Your task to perform on an android device: set default search engine in the chrome app Image 0: 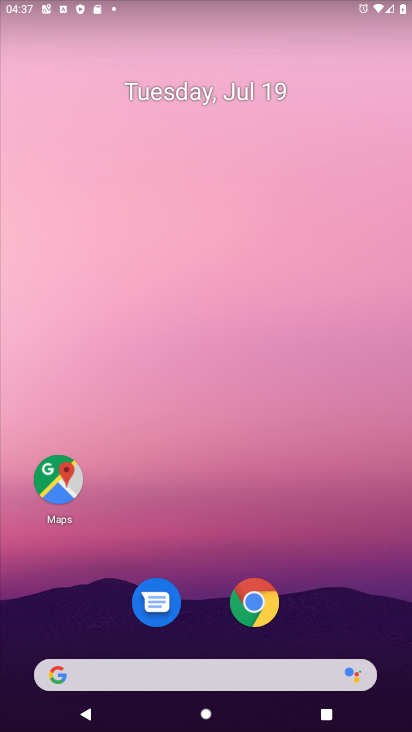
Step 0: click (243, 606)
Your task to perform on an android device: set default search engine in the chrome app Image 1: 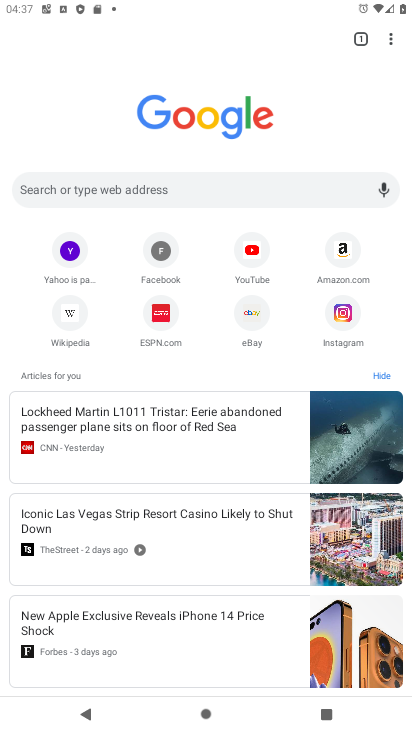
Step 1: click (396, 31)
Your task to perform on an android device: set default search engine in the chrome app Image 2: 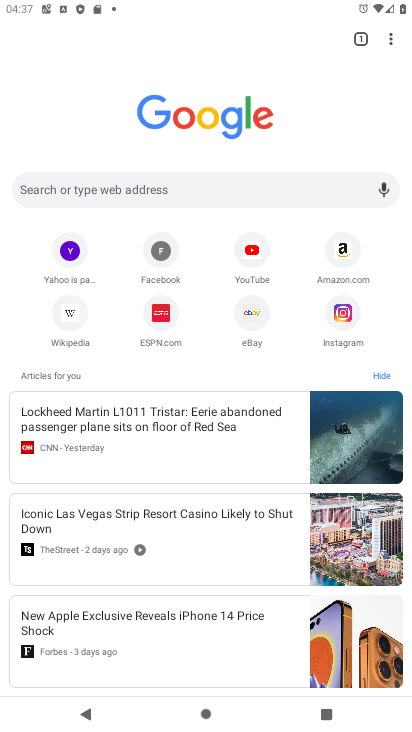
Step 2: click (396, 44)
Your task to perform on an android device: set default search engine in the chrome app Image 3: 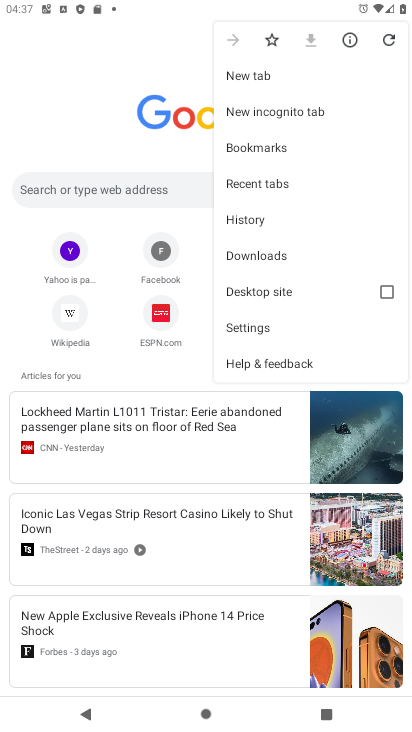
Step 3: click (253, 323)
Your task to perform on an android device: set default search engine in the chrome app Image 4: 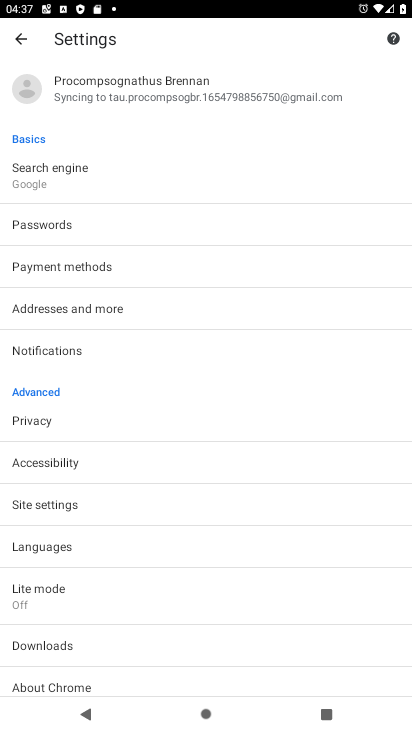
Step 4: click (253, 323)
Your task to perform on an android device: set default search engine in the chrome app Image 5: 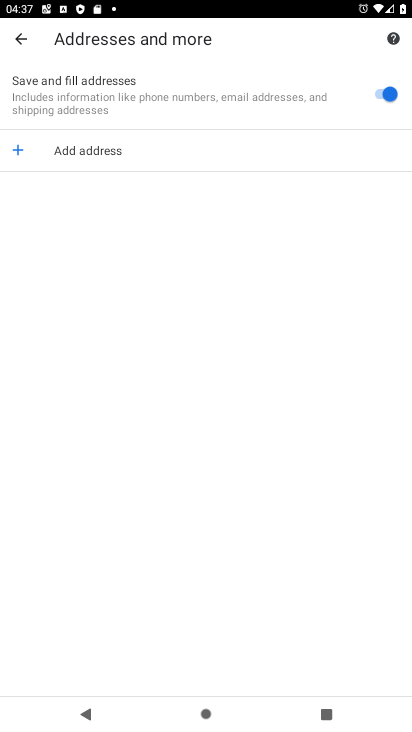
Step 5: click (20, 31)
Your task to perform on an android device: set default search engine in the chrome app Image 6: 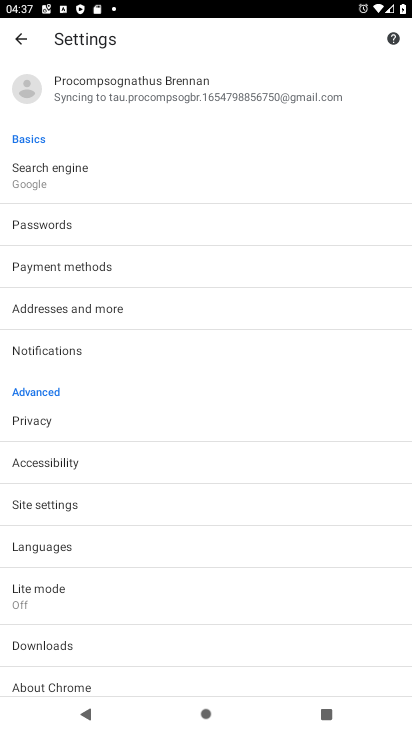
Step 6: click (78, 174)
Your task to perform on an android device: set default search engine in the chrome app Image 7: 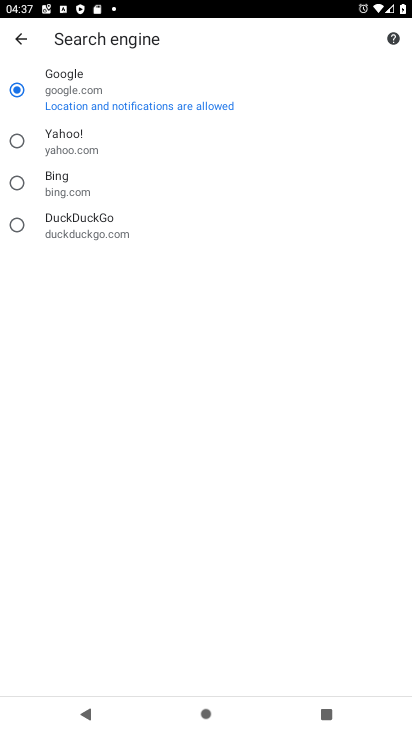
Step 7: click (139, 215)
Your task to perform on an android device: set default search engine in the chrome app Image 8: 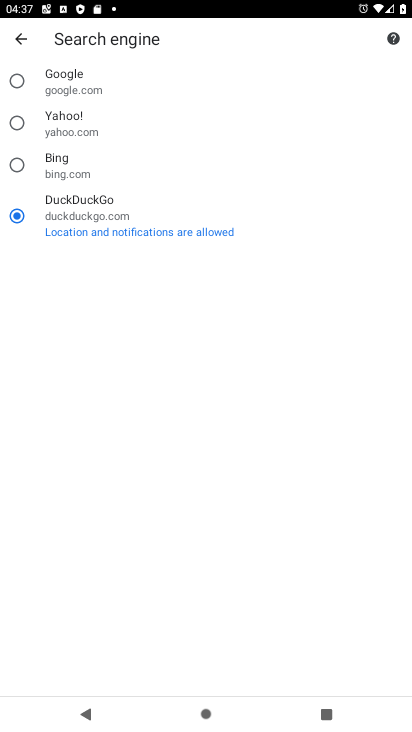
Step 8: task complete